Your task to perform on an android device: Open Google Image 0: 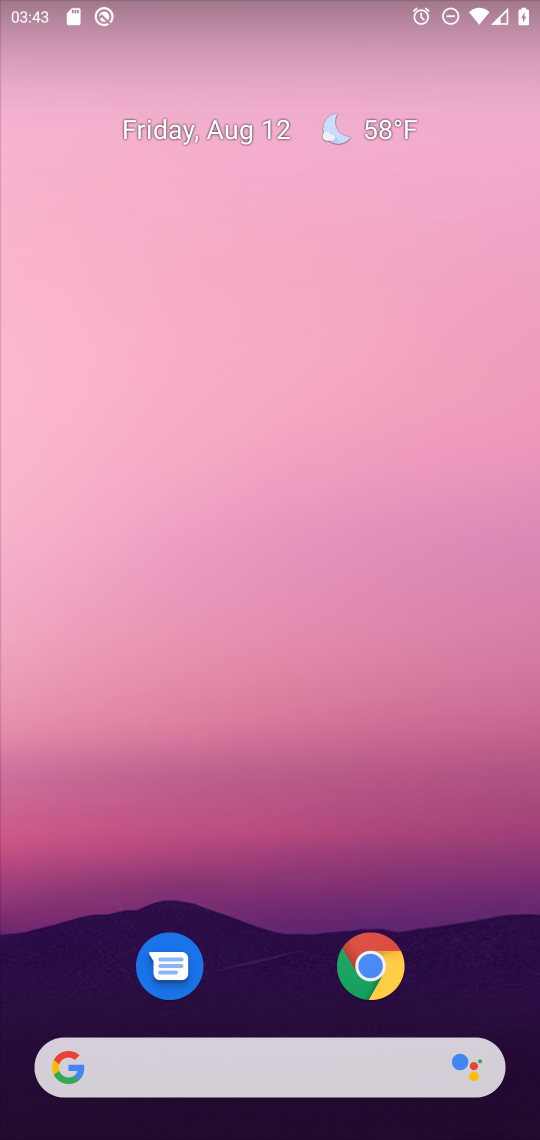
Step 0: drag from (260, 932) to (319, 92)
Your task to perform on an android device: Open Google Image 1: 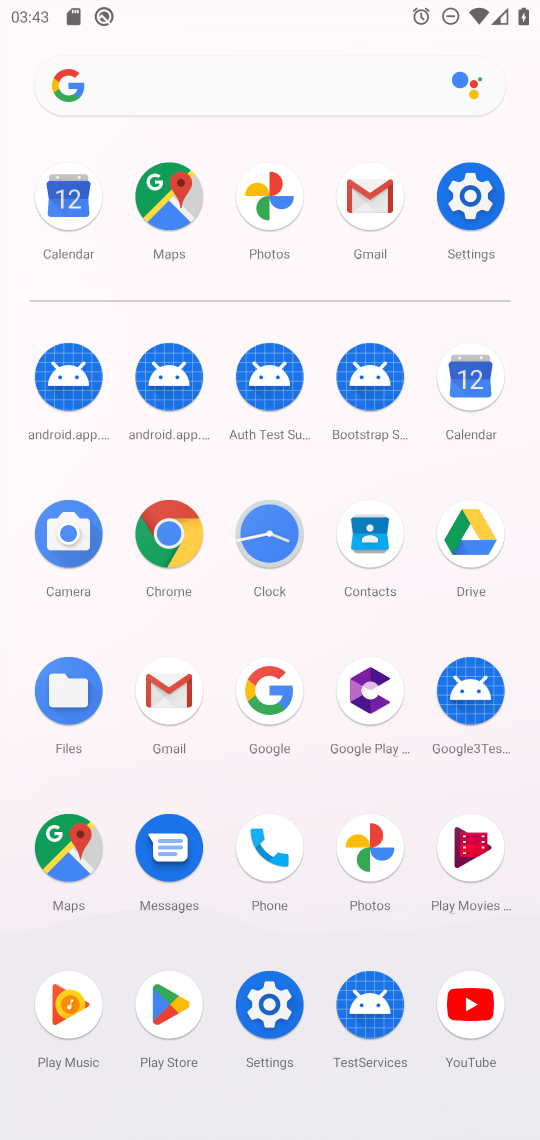
Step 1: click (256, 696)
Your task to perform on an android device: Open Google Image 2: 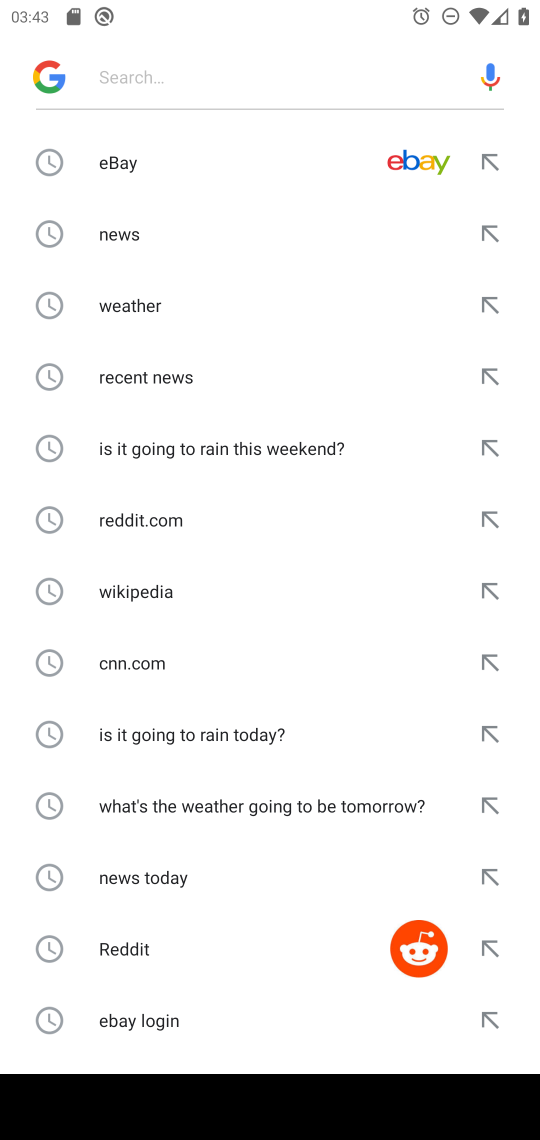
Step 2: task complete